Your task to perform on an android device: Search for Mexican restaurants on Maps Image 0: 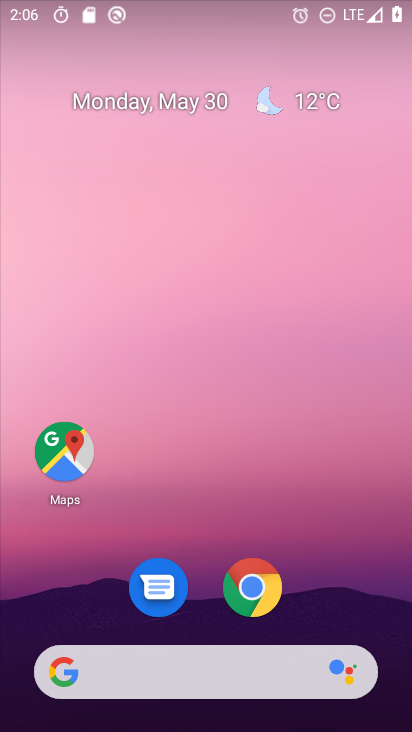
Step 0: click (62, 458)
Your task to perform on an android device: Search for Mexican restaurants on Maps Image 1: 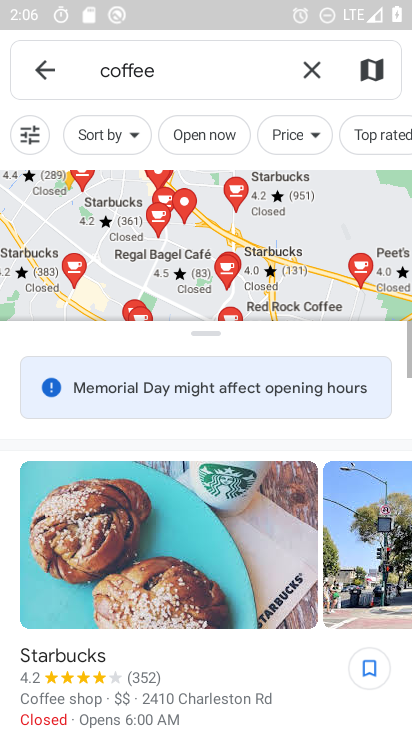
Step 1: click (319, 65)
Your task to perform on an android device: Search for Mexican restaurants on Maps Image 2: 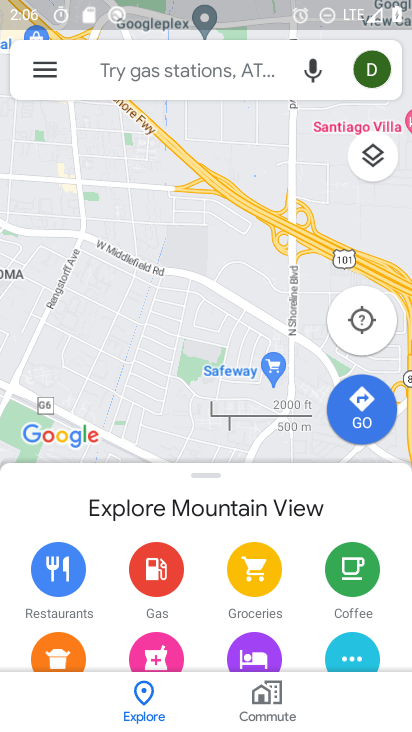
Step 2: click (242, 67)
Your task to perform on an android device: Search for Mexican restaurants on Maps Image 3: 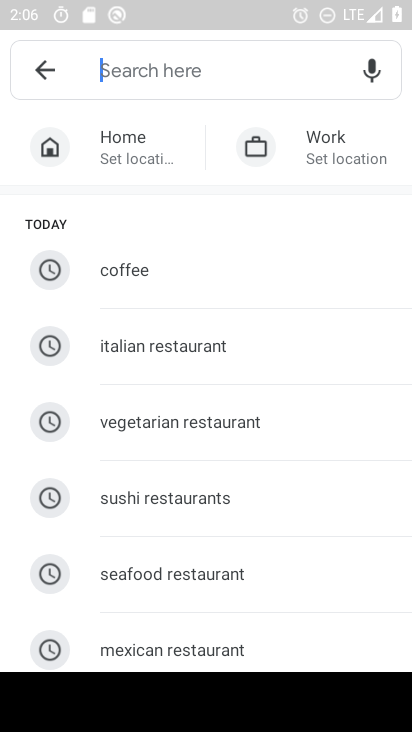
Step 3: click (197, 642)
Your task to perform on an android device: Search for Mexican restaurants on Maps Image 4: 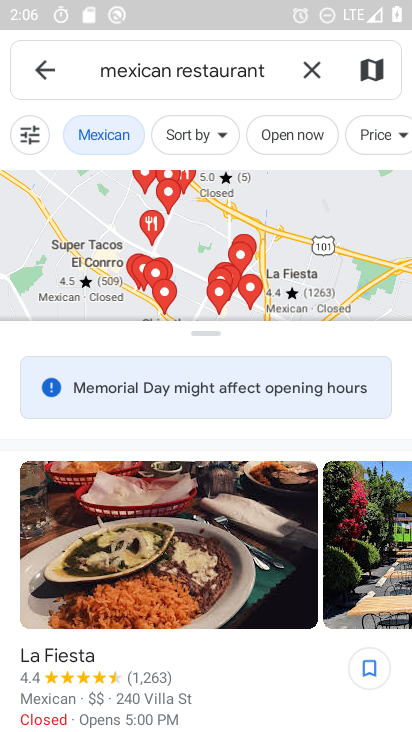
Step 4: type "s"
Your task to perform on an android device: Search for Mexican restaurants on Maps Image 5: 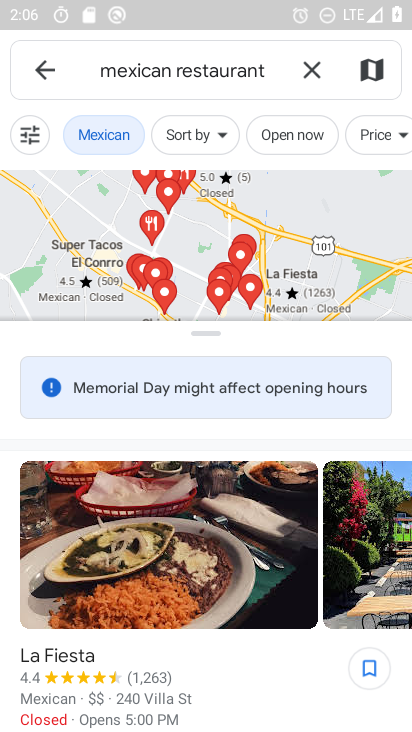
Step 5: click (272, 64)
Your task to perform on an android device: Search for Mexican restaurants on Maps Image 6: 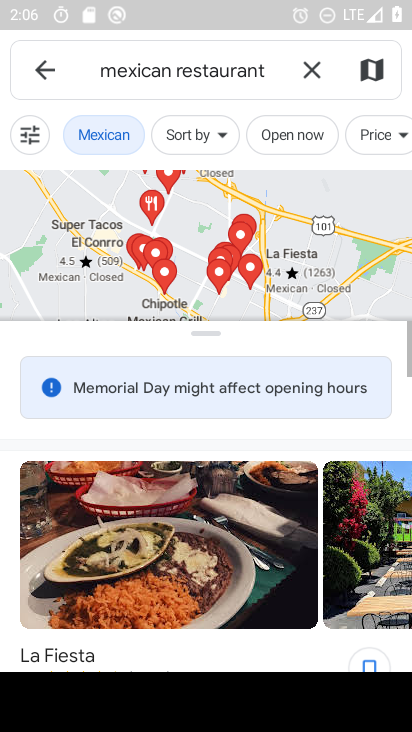
Step 6: click (276, 67)
Your task to perform on an android device: Search for Mexican restaurants on Maps Image 7: 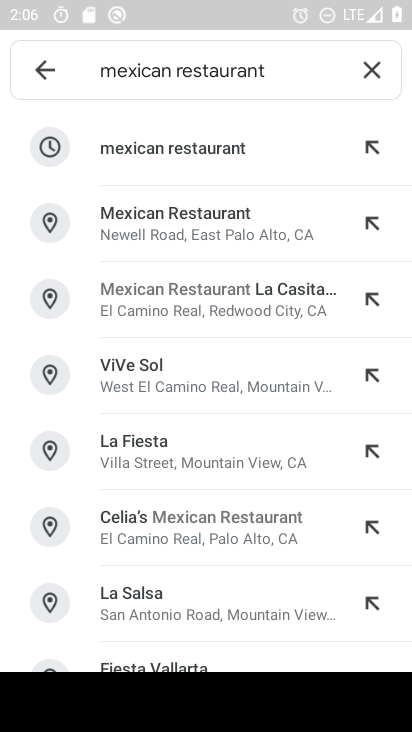
Step 7: type "s"
Your task to perform on an android device: Search for Mexican restaurants on Maps Image 8: 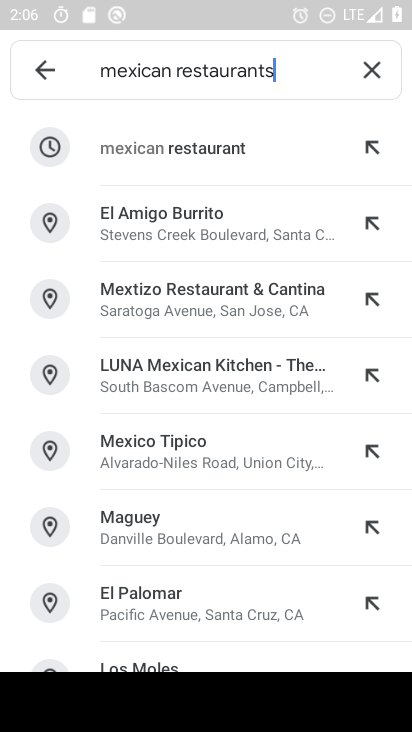
Step 8: press enter
Your task to perform on an android device: Search for Mexican restaurants on Maps Image 9: 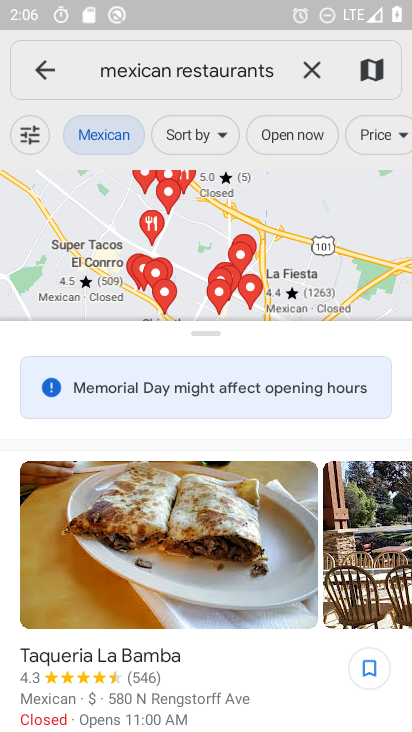
Step 9: task complete